Your task to perform on an android device: Search for vegetarian restaurants on Maps Image 0: 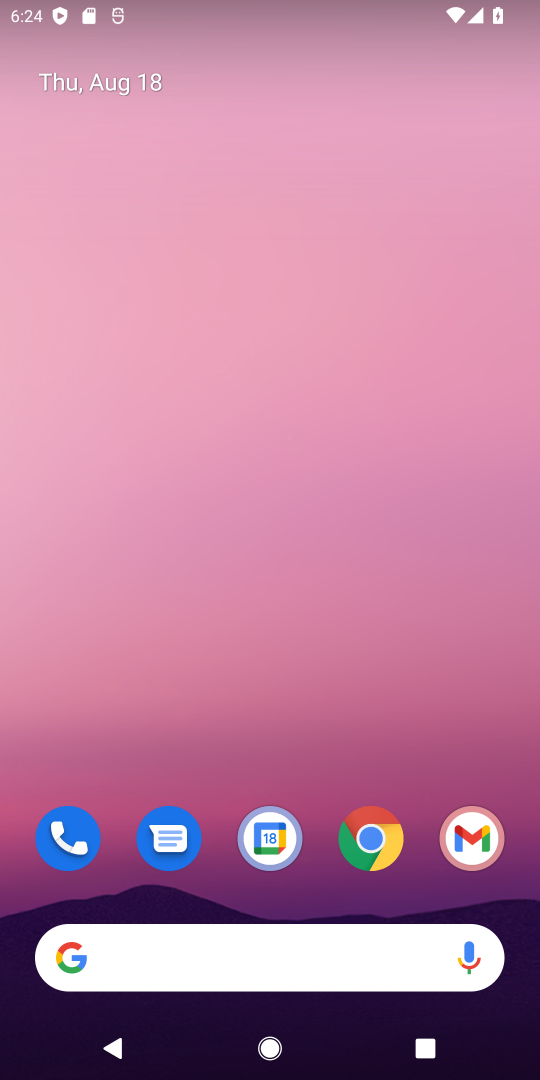
Step 0: press home button
Your task to perform on an android device: Search for vegetarian restaurants on Maps Image 1: 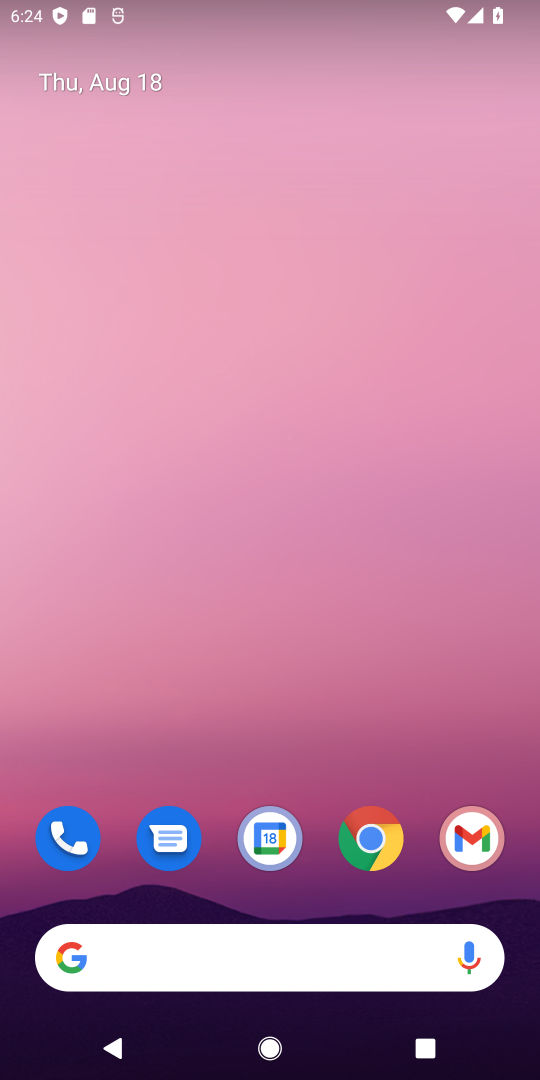
Step 1: drag from (309, 889) to (341, 225)
Your task to perform on an android device: Search for vegetarian restaurants on Maps Image 2: 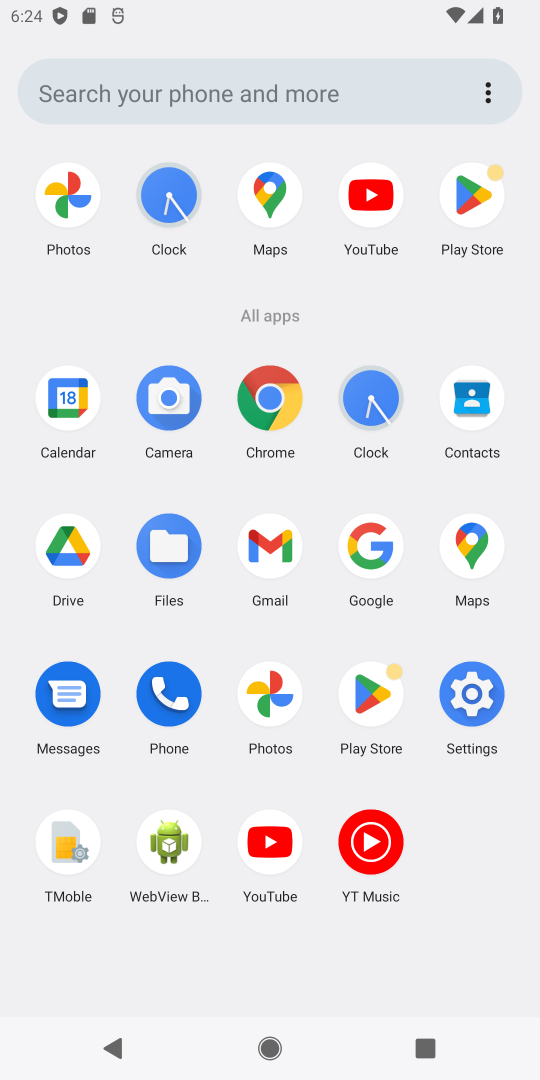
Step 2: click (477, 545)
Your task to perform on an android device: Search for vegetarian restaurants on Maps Image 3: 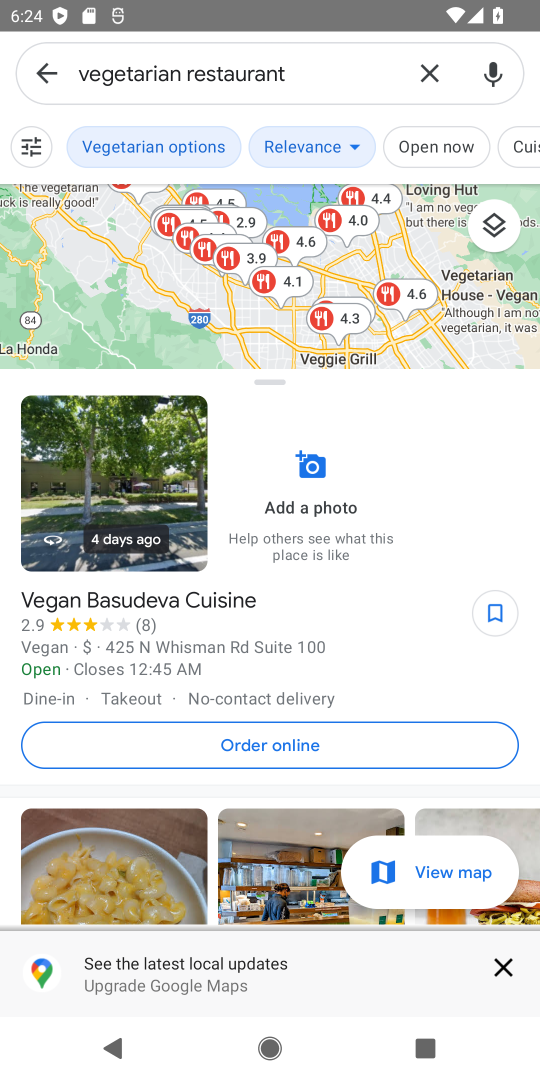
Step 3: click (428, 77)
Your task to perform on an android device: Search for vegetarian restaurants on Maps Image 4: 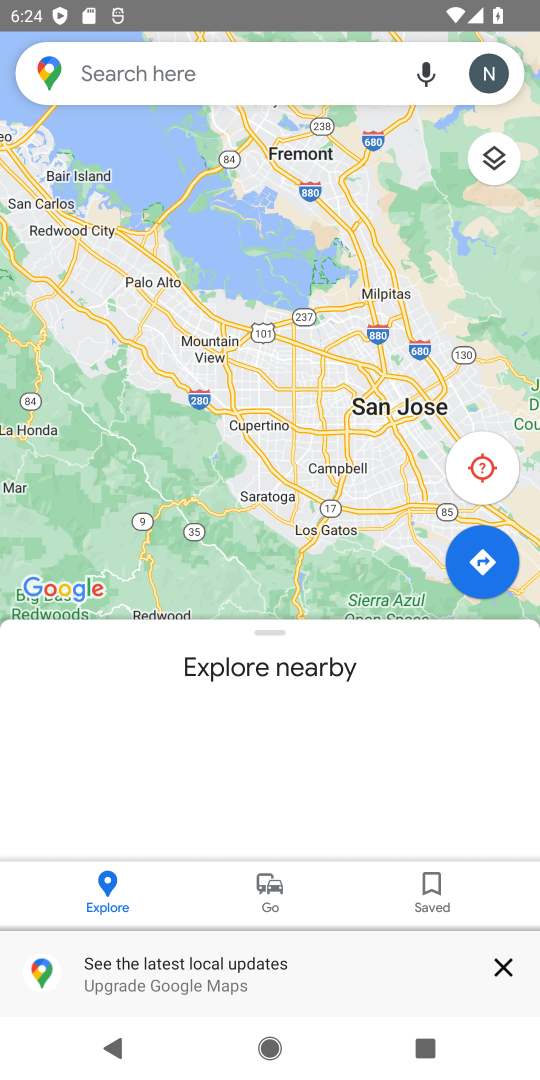
Step 4: click (211, 76)
Your task to perform on an android device: Search for vegetarian restaurants on Maps Image 5: 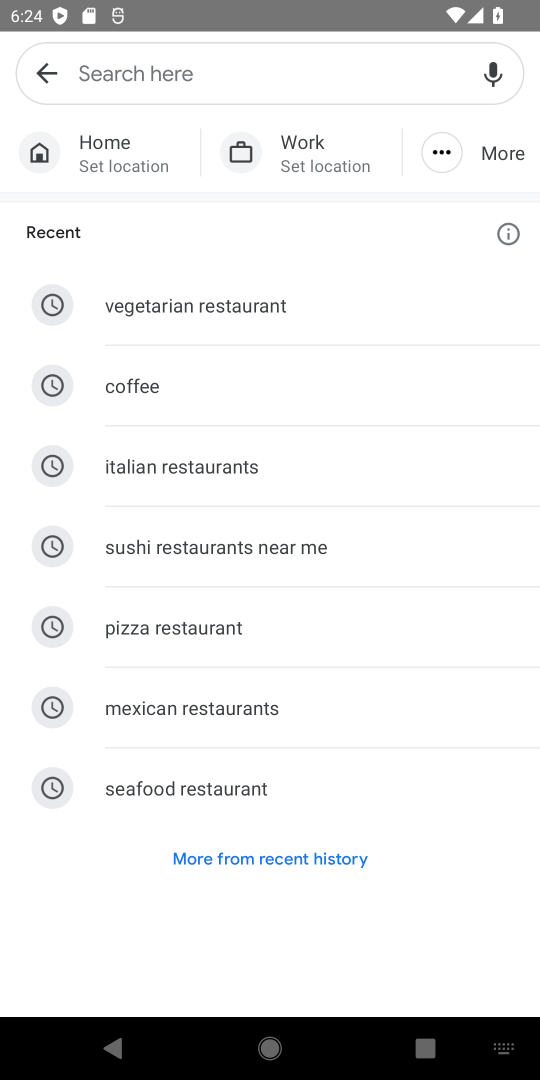
Step 5: click (196, 310)
Your task to perform on an android device: Search for vegetarian restaurants on Maps Image 6: 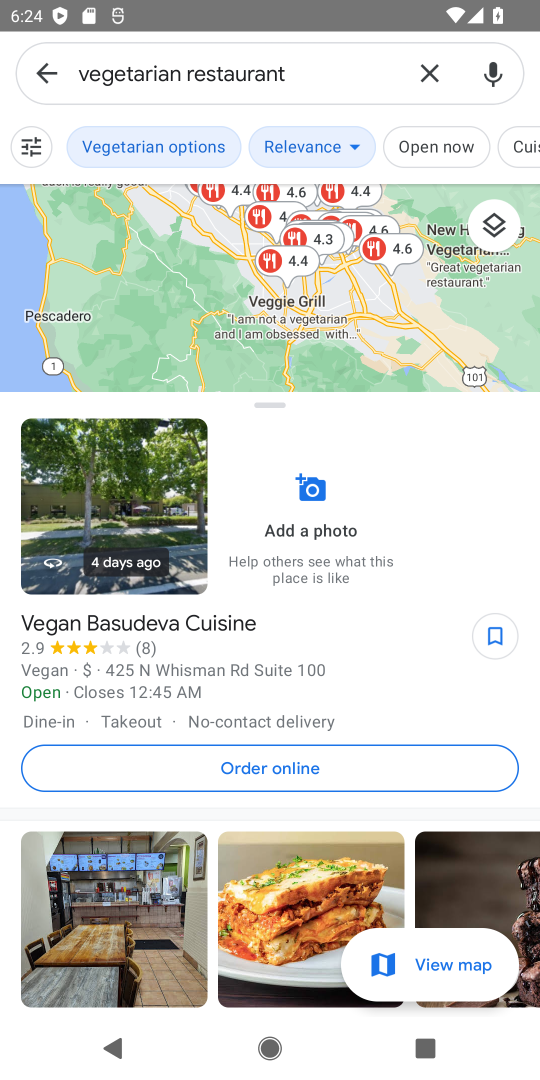
Step 6: task complete